Your task to perform on an android device: Search for "razer blackwidow" on newegg.com, select the first entry, add it to the cart, then select checkout. Image 0: 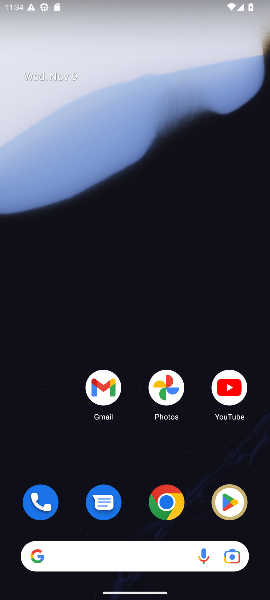
Step 0: drag from (128, 522) to (178, 109)
Your task to perform on an android device: Search for "razer blackwidow" on newegg.com, select the first entry, add it to the cart, then select checkout. Image 1: 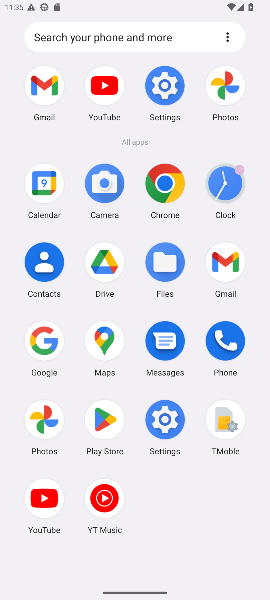
Step 1: click (171, 188)
Your task to perform on an android device: Search for "razer blackwidow" on newegg.com, select the first entry, add it to the cart, then select checkout. Image 2: 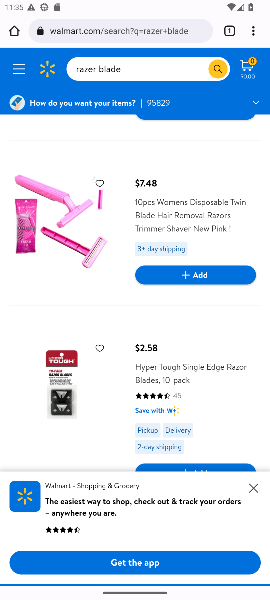
Step 2: click (163, 25)
Your task to perform on an android device: Search for "razer blackwidow" on newegg.com, select the first entry, add it to the cart, then select checkout. Image 3: 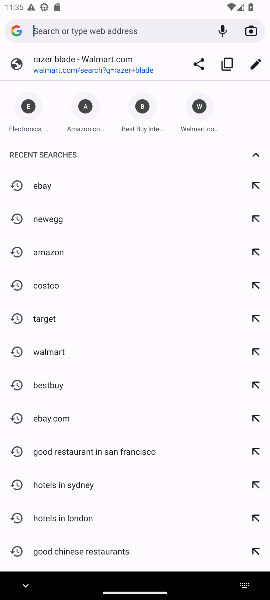
Step 3: type "newegg.com"
Your task to perform on an android device: Search for "razer blackwidow" on newegg.com, select the first entry, add it to the cart, then select checkout. Image 4: 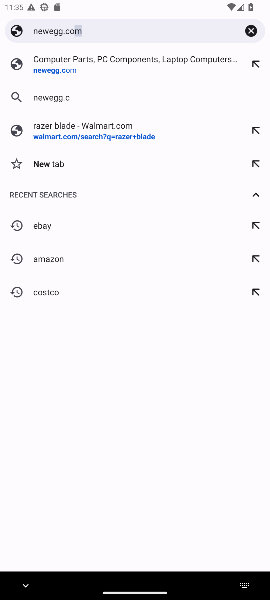
Step 4: press enter
Your task to perform on an android device: Search for "razer blackwidow" on newegg.com, select the first entry, add it to the cart, then select checkout. Image 5: 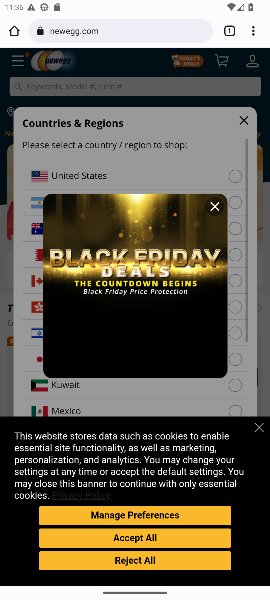
Step 5: click (247, 119)
Your task to perform on an android device: Search for "razer blackwidow" on newegg.com, select the first entry, add it to the cart, then select checkout. Image 6: 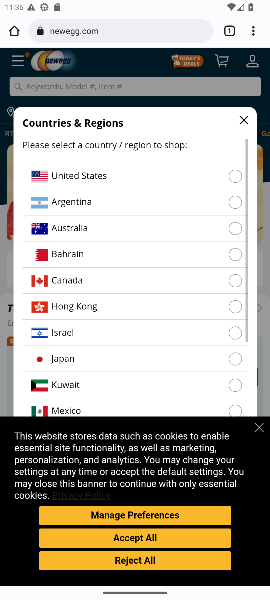
Step 6: click (246, 120)
Your task to perform on an android device: Search for "razer blackwidow" on newegg.com, select the first entry, add it to the cart, then select checkout. Image 7: 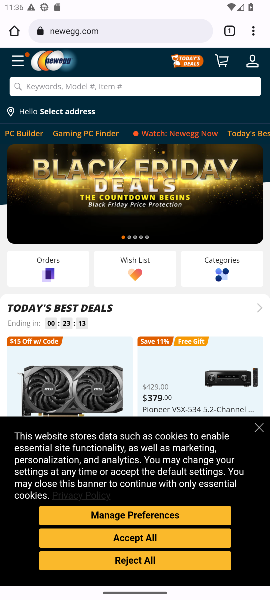
Step 7: click (121, 84)
Your task to perform on an android device: Search for "razer blackwidow" on newegg.com, select the first entry, add it to the cart, then select checkout. Image 8: 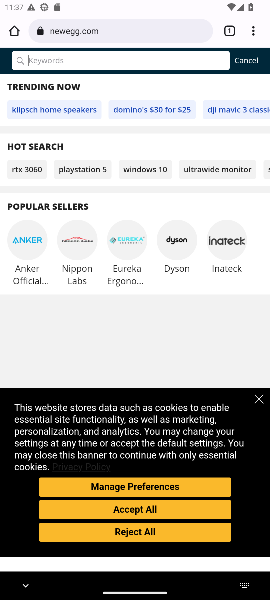
Step 8: type "razer blackwidow"
Your task to perform on an android device: Search for "razer blackwidow" on newegg.com, select the first entry, add it to the cart, then select checkout. Image 9: 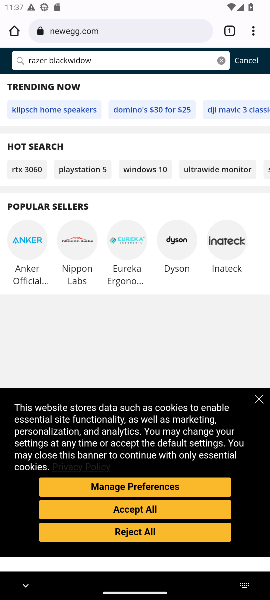
Step 9: press enter
Your task to perform on an android device: Search for "razer blackwidow" on newegg.com, select the first entry, add it to the cart, then select checkout. Image 10: 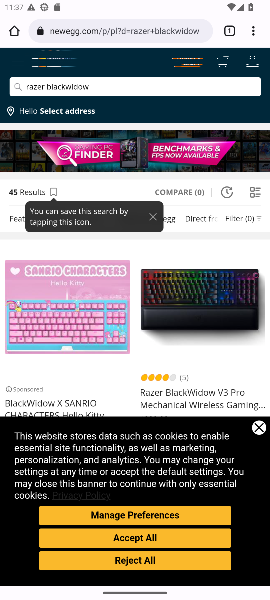
Step 10: drag from (208, 361) to (198, 276)
Your task to perform on an android device: Search for "razer blackwidow" on newegg.com, select the first entry, add it to the cart, then select checkout. Image 11: 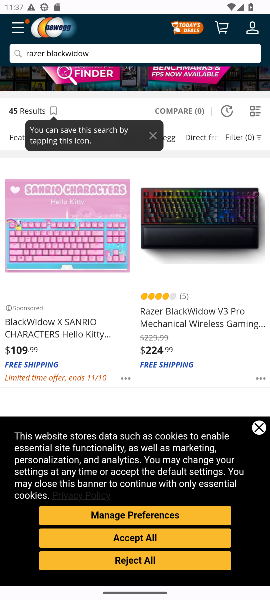
Step 11: click (181, 314)
Your task to perform on an android device: Search for "razer blackwidow" on newegg.com, select the first entry, add it to the cart, then select checkout. Image 12: 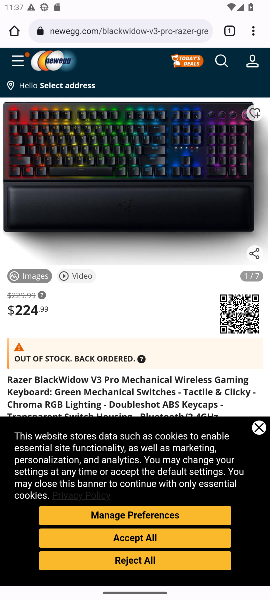
Step 12: click (148, 540)
Your task to perform on an android device: Search for "razer blackwidow" on newegg.com, select the first entry, add it to the cart, then select checkout. Image 13: 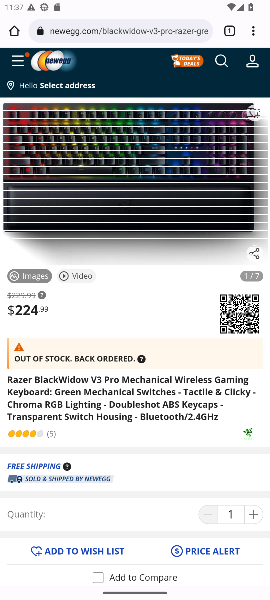
Step 13: task complete